Your task to perform on an android device: Go to eBay Image 0: 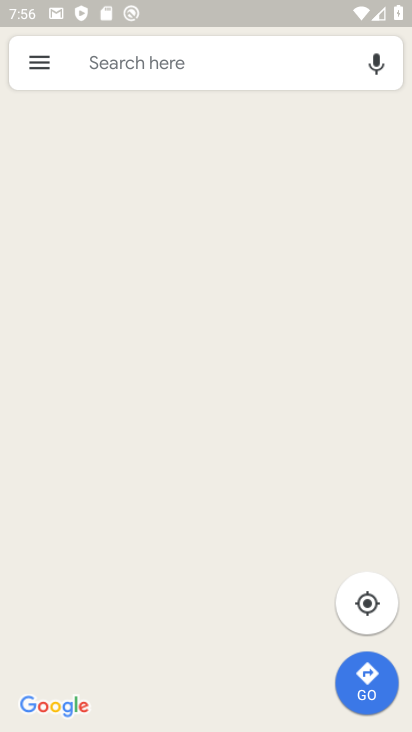
Step 0: press home button
Your task to perform on an android device: Go to eBay Image 1: 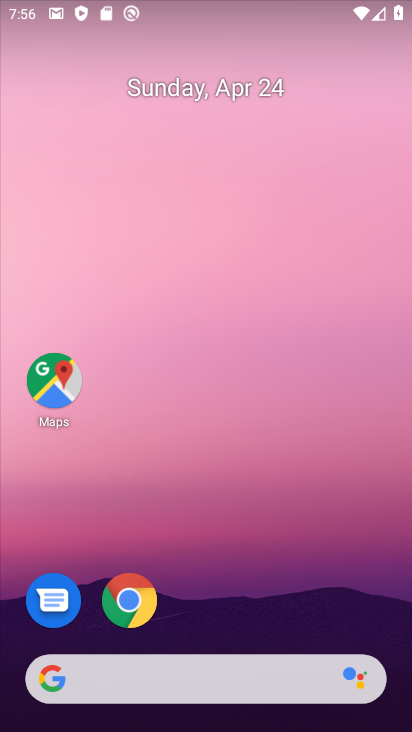
Step 1: click (126, 588)
Your task to perform on an android device: Go to eBay Image 2: 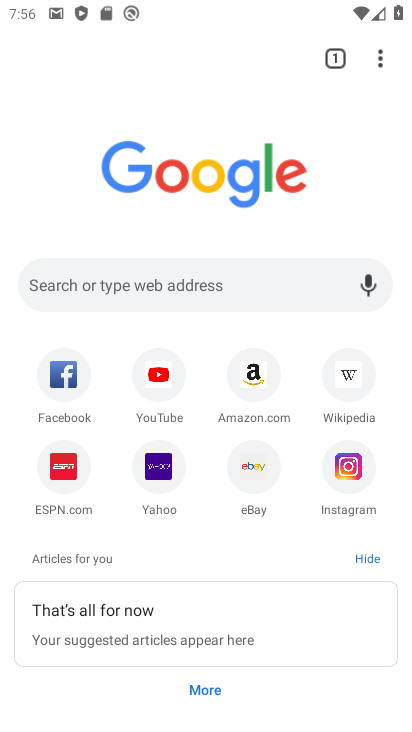
Step 2: click (256, 451)
Your task to perform on an android device: Go to eBay Image 3: 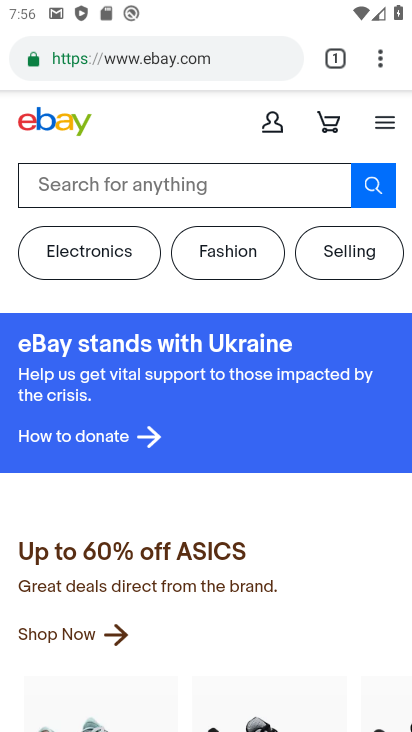
Step 3: task complete